Your task to perform on an android device: move a message to another label in the gmail app Image 0: 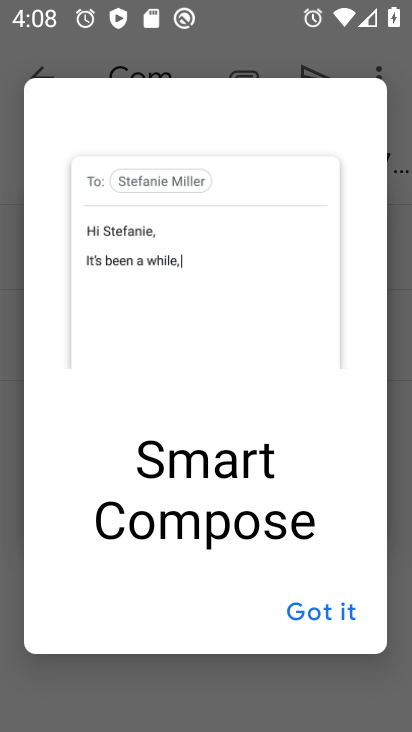
Step 0: press home button
Your task to perform on an android device: move a message to another label in the gmail app Image 1: 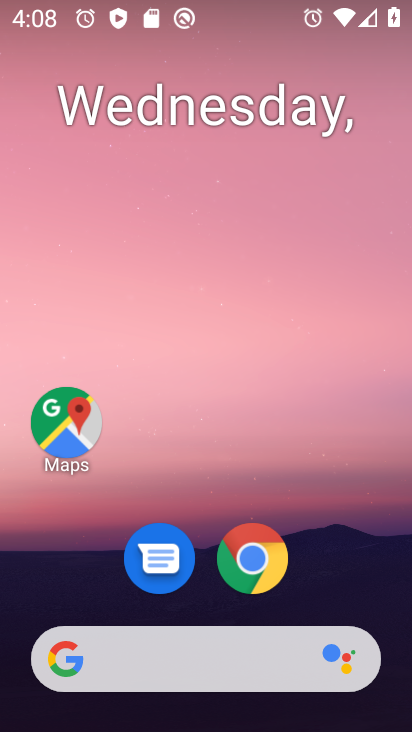
Step 1: drag from (184, 632) to (163, 198)
Your task to perform on an android device: move a message to another label in the gmail app Image 2: 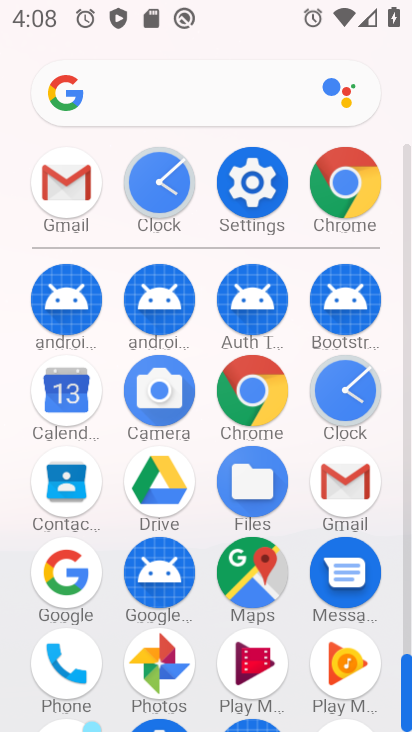
Step 2: click (57, 190)
Your task to perform on an android device: move a message to another label in the gmail app Image 3: 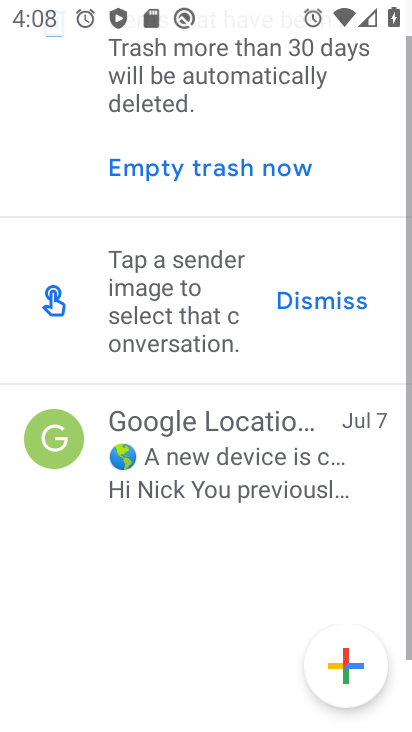
Step 3: drag from (137, 221) to (151, 508)
Your task to perform on an android device: move a message to another label in the gmail app Image 4: 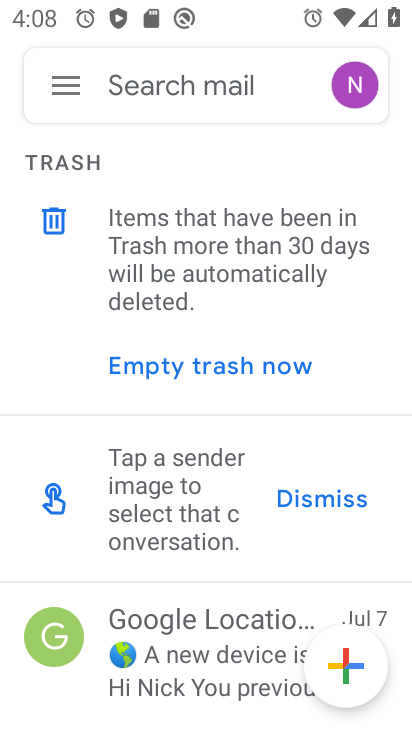
Step 4: click (55, 88)
Your task to perform on an android device: move a message to another label in the gmail app Image 5: 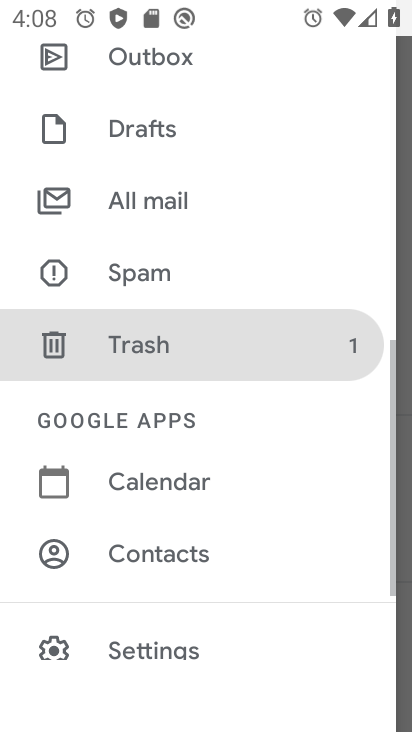
Step 5: drag from (122, 122) to (198, 579)
Your task to perform on an android device: move a message to another label in the gmail app Image 6: 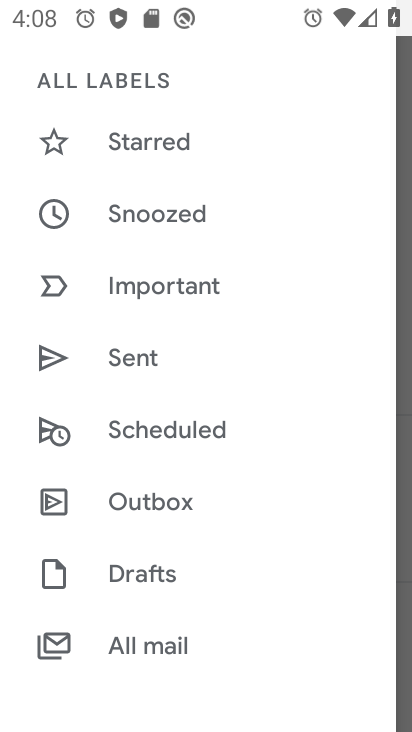
Step 6: drag from (148, 119) to (198, 589)
Your task to perform on an android device: move a message to another label in the gmail app Image 7: 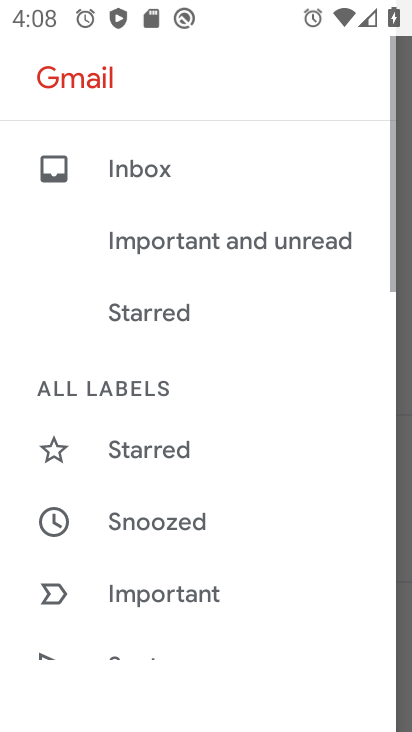
Step 7: click (140, 186)
Your task to perform on an android device: move a message to another label in the gmail app Image 8: 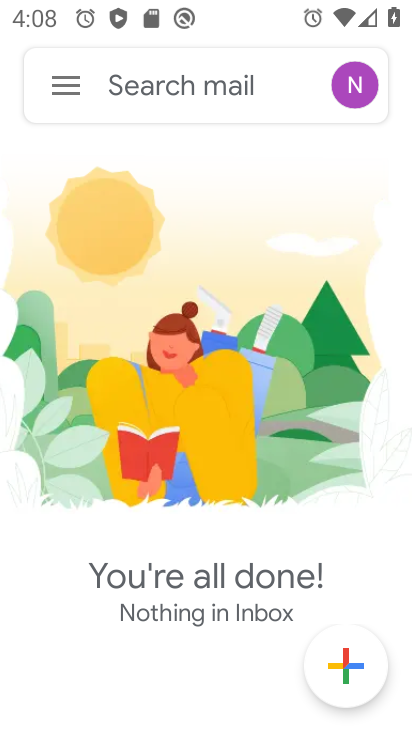
Step 8: task complete